Your task to perform on an android device: refresh tabs in the chrome app Image 0: 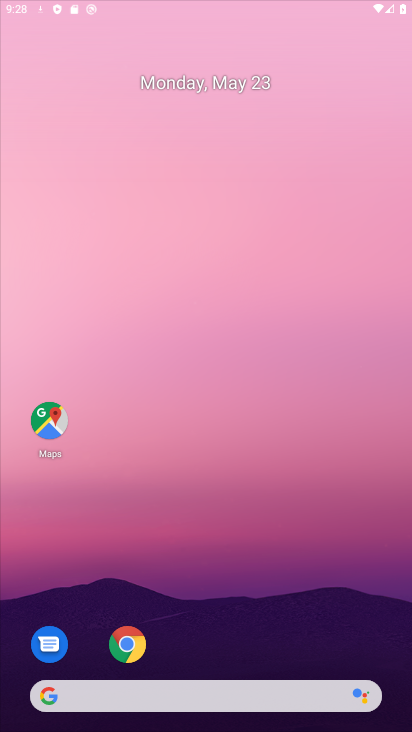
Step 0: drag from (257, 684) to (280, 300)
Your task to perform on an android device: refresh tabs in the chrome app Image 1: 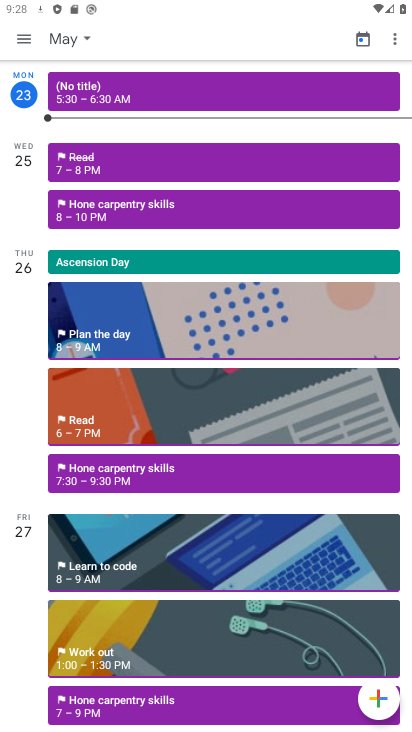
Step 1: press home button
Your task to perform on an android device: refresh tabs in the chrome app Image 2: 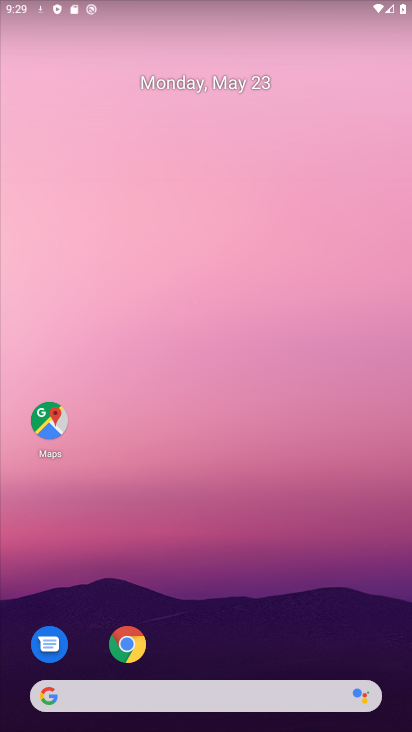
Step 2: drag from (232, 680) to (216, 177)
Your task to perform on an android device: refresh tabs in the chrome app Image 3: 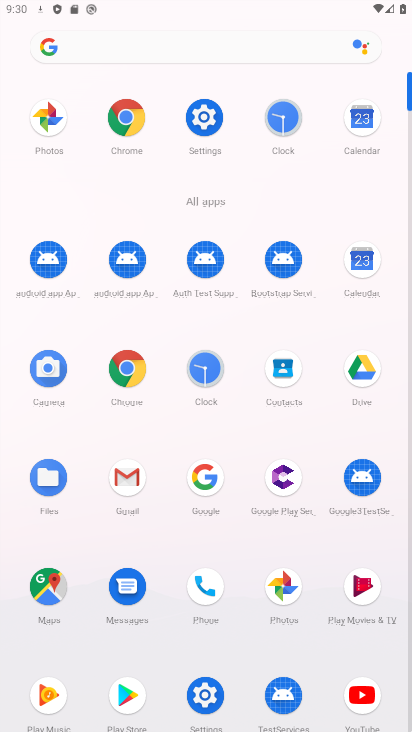
Step 3: click (122, 390)
Your task to perform on an android device: refresh tabs in the chrome app Image 4: 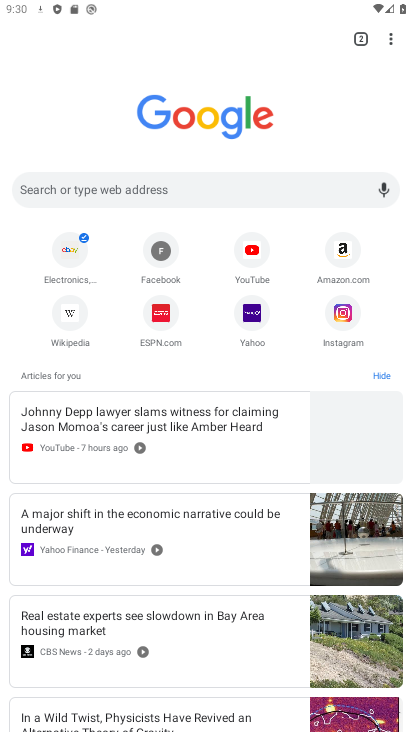
Step 4: click (387, 45)
Your task to perform on an android device: refresh tabs in the chrome app Image 5: 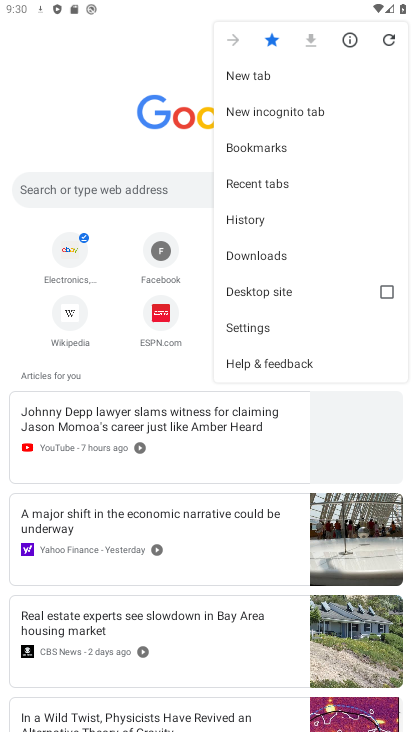
Step 5: click (396, 35)
Your task to perform on an android device: refresh tabs in the chrome app Image 6: 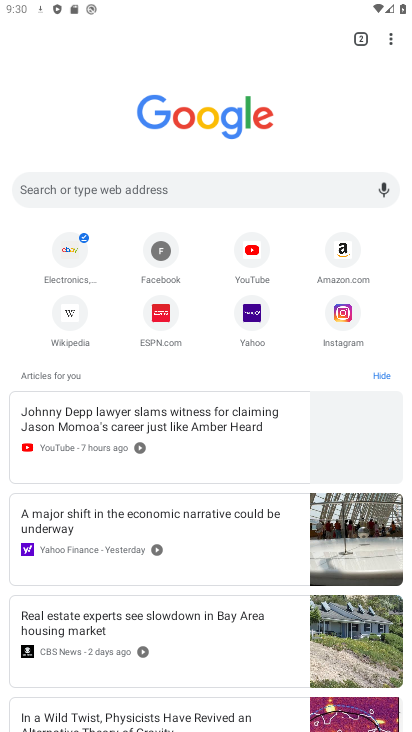
Step 6: task complete